Your task to perform on an android device: Open the stopwatch Image 0: 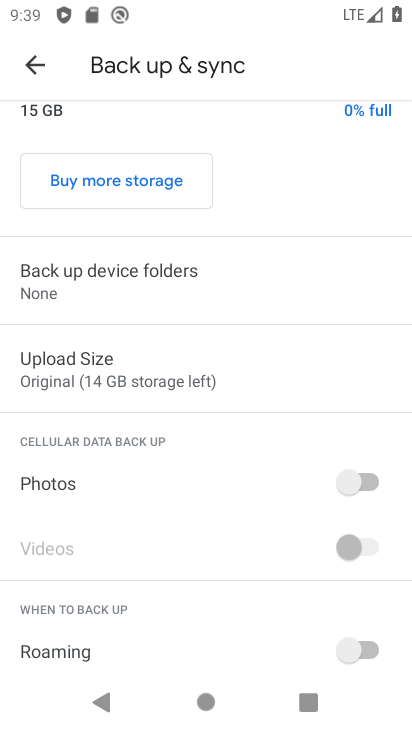
Step 0: press home button
Your task to perform on an android device: Open the stopwatch Image 1: 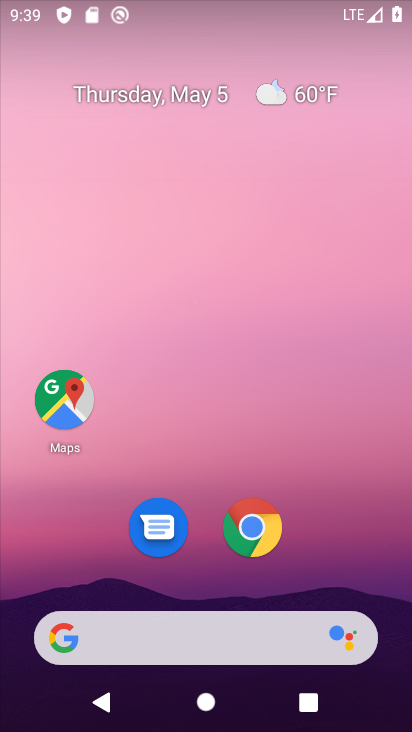
Step 1: drag from (360, 590) to (378, 13)
Your task to perform on an android device: Open the stopwatch Image 2: 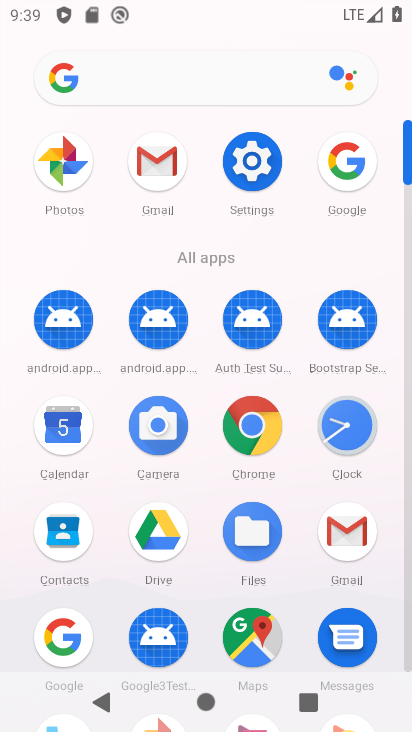
Step 2: click (348, 441)
Your task to perform on an android device: Open the stopwatch Image 3: 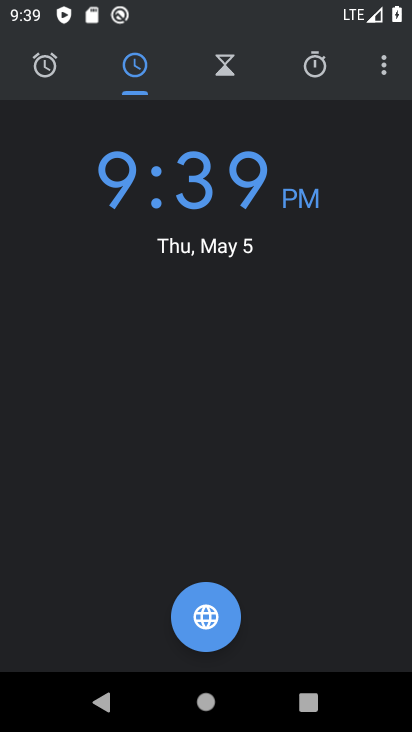
Step 3: click (307, 71)
Your task to perform on an android device: Open the stopwatch Image 4: 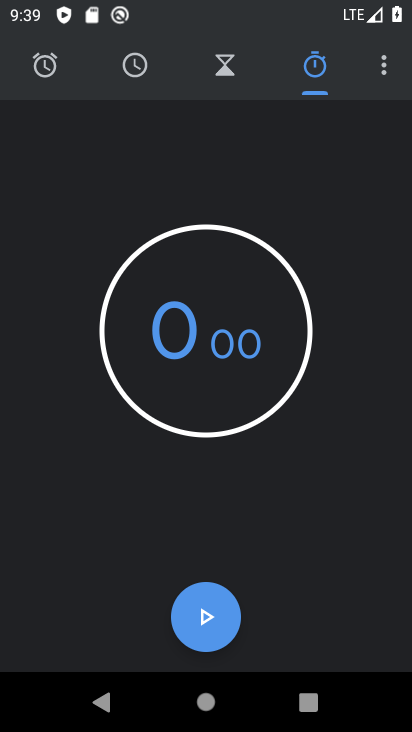
Step 4: click (217, 624)
Your task to perform on an android device: Open the stopwatch Image 5: 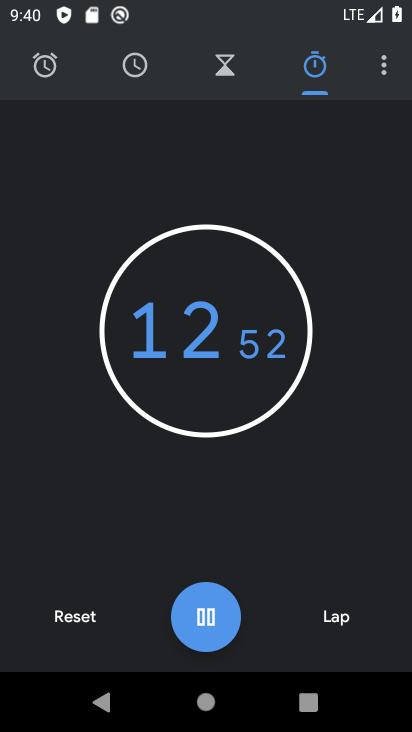
Step 5: task complete